Your task to perform on an android device: turn on priority inbox in the gmail app Image 0: 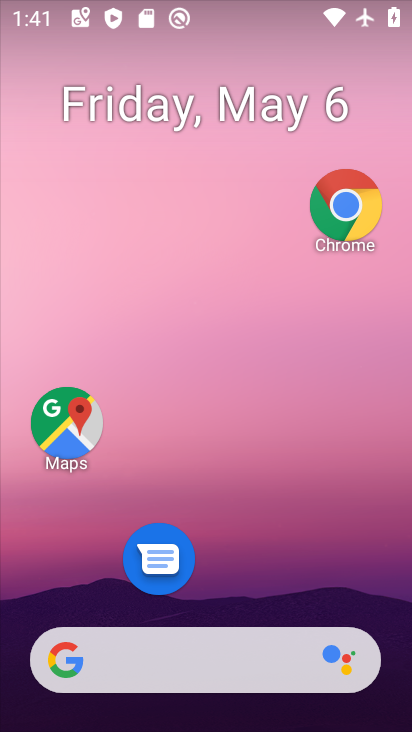
Step 0: drag from (169, 653) to (301, 131)
Your task to perform on an android device: turn on priority inbox in the gmail app Image 1: 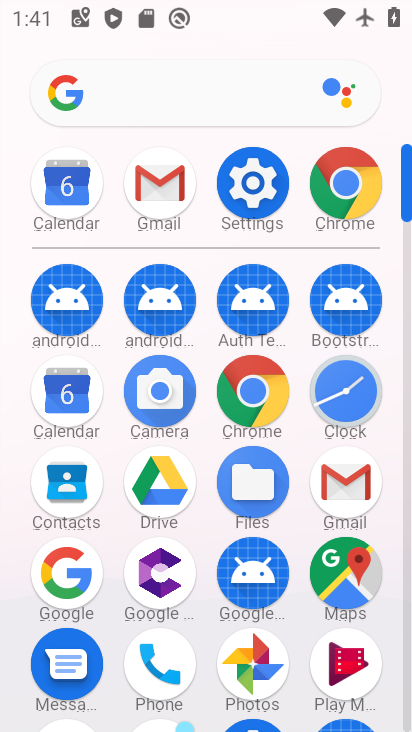
Step 1: click (153, 200)
Your task to perform on an android device: turn on priority inbox in the gmail app Image 2: 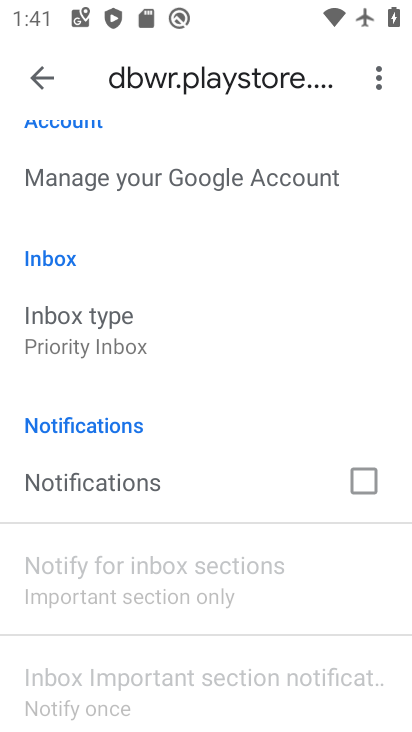
Step 2: click (122, 332)
Your task to perform on an android device: turn on priority inbox in the gmail app Image 3: 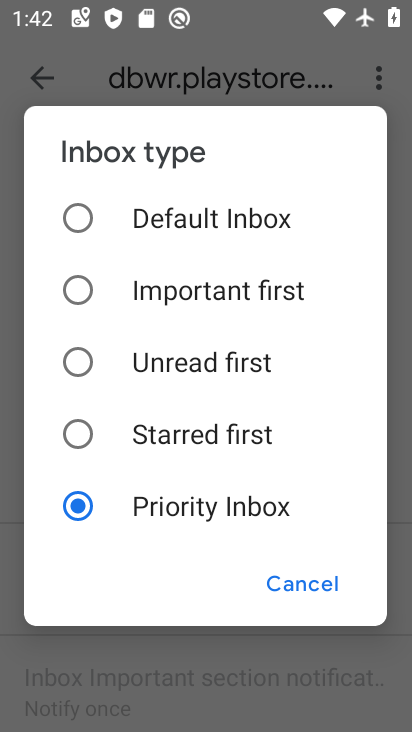
Step 3: task complete